Your task to perform on an android device: change keyboard looks Image 0: 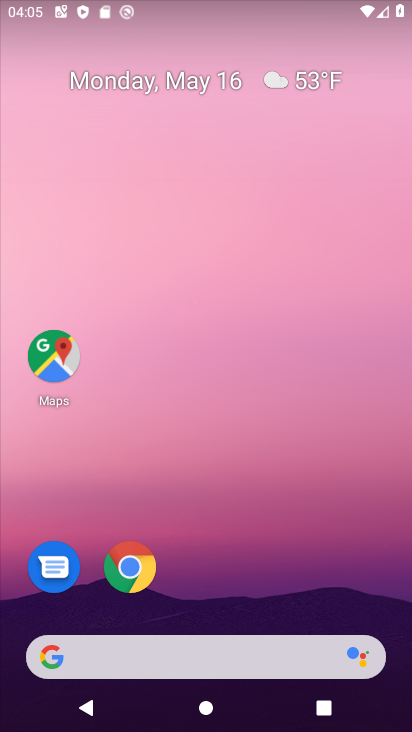
Step 0: drag from (319, 641) to (348, 4)
Your task to perform on an android device: change keyboard looks Image 1: 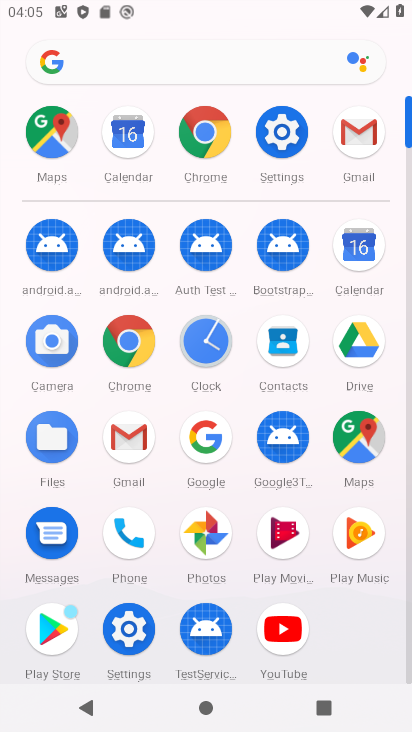
Step 1: click (269, 136)
Your task to perform on an android device: change keyboard looks Image 2: 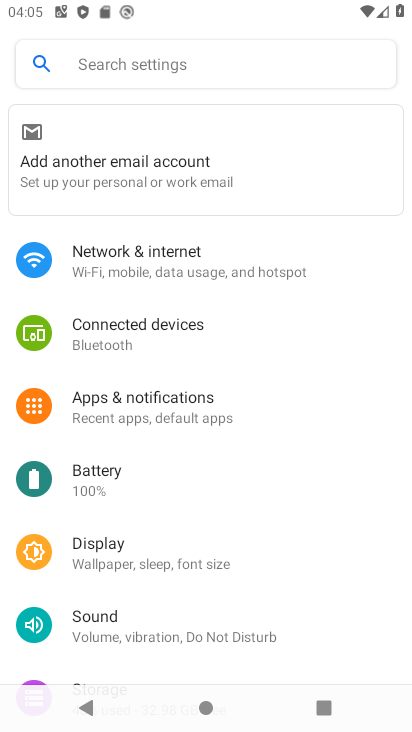
Step 2: drag from (218, 636) to (302, 49)
Your task to perform on an android device: change keyboard looks Image 3: 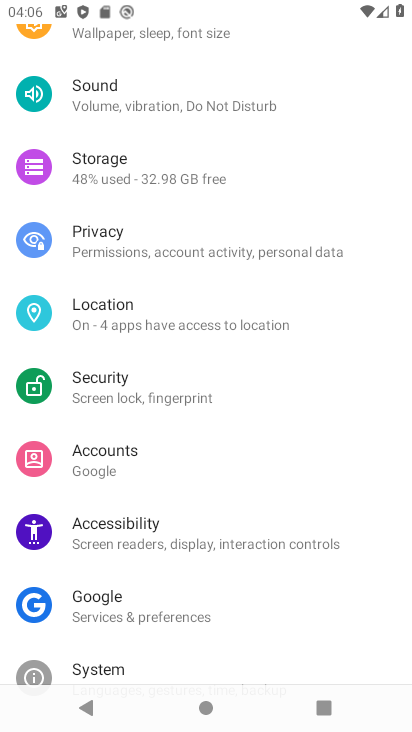
Step 3: drag from (216, 614) to (260, 302)
Your task to perform on an android device: change keyboard looks Image 4: 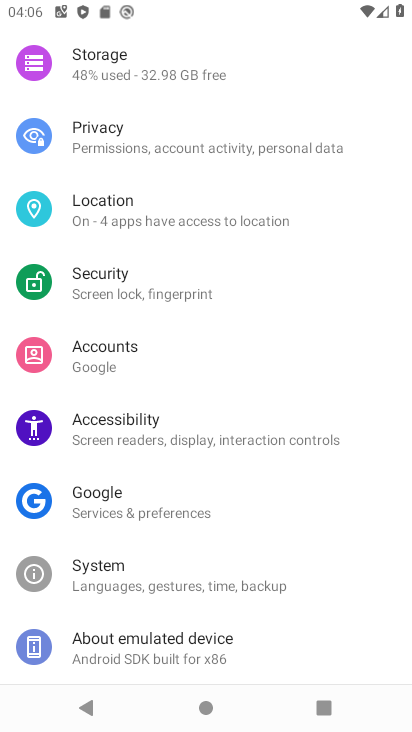
Step 4: click (161, 581)
Your task to perform on an android device: change keyboard looks Image 5: 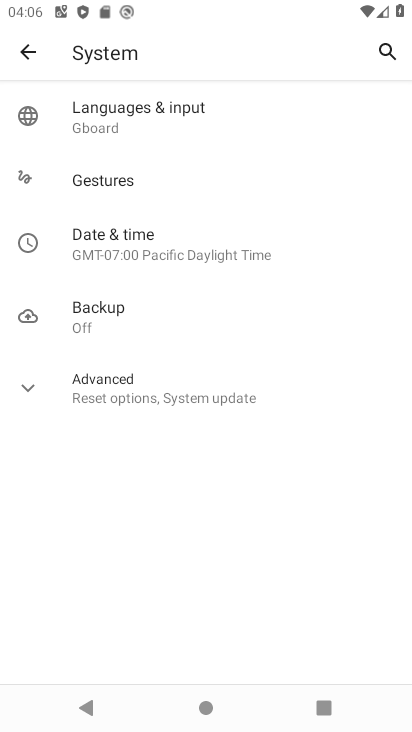
Step 5: click (162, 112)
Your task to perform on an android device: change keyboard looks Image 6: 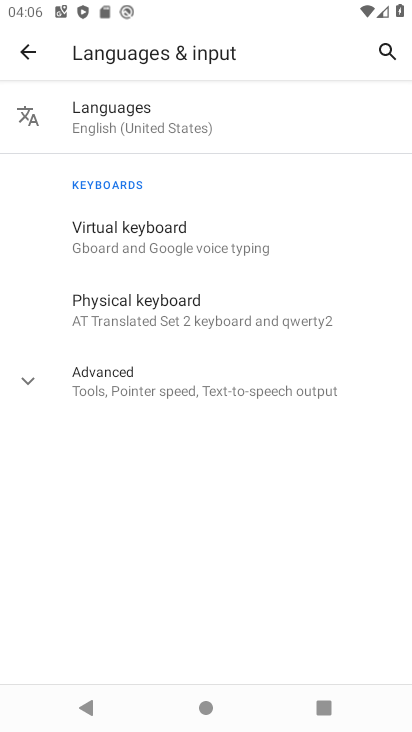
Step 6: click (146, 244)
Your task to perform on an android device: change keyboard looks Image 7: 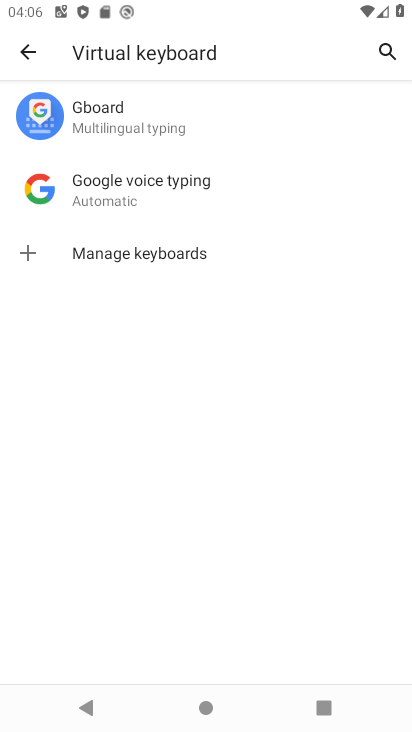
Step 7: click (145, 123)
Your task to perform on an android device: change keyboard looks Image 8: 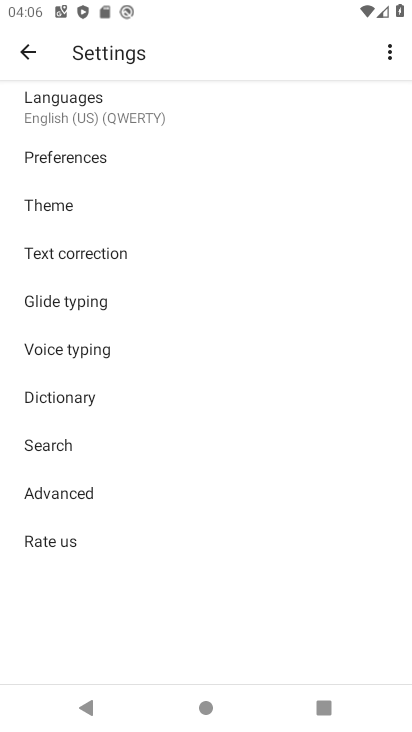
Step 8: drag from (81, 205) to (5, 196)
Your task to perform on an android device: change keyboard looks Image 9: 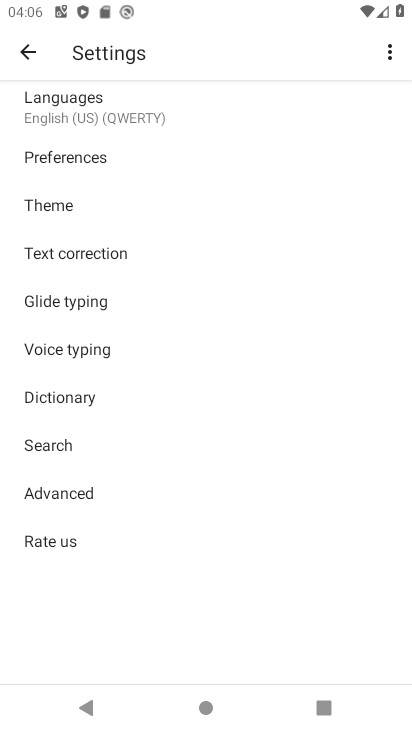
Step 9: click (75, 203)
Your task to perform on an android device: change keyboard looks Image 10: 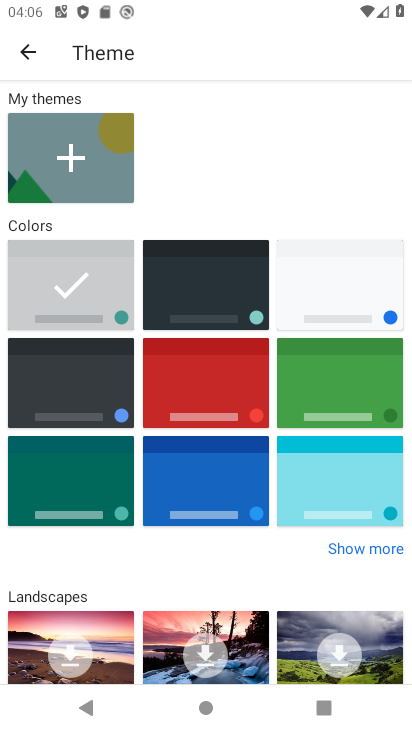
Step 10: click (300, 477)
Your task to perform on an android device: change keyboard looks Image 11: 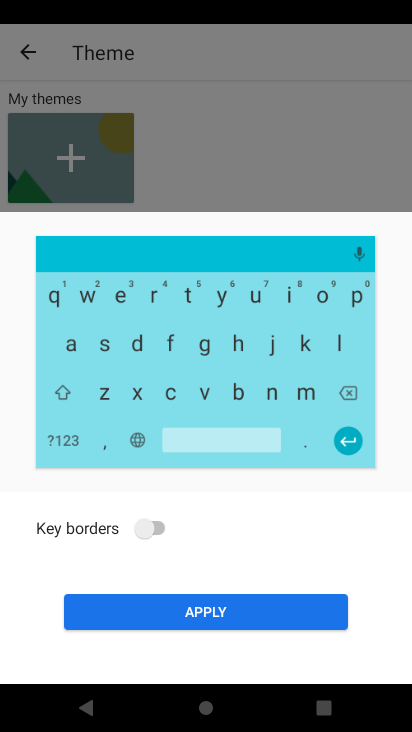
Step 11: click (212, 612)
Your task to perform on an android device: change keyboard looks Image 12: 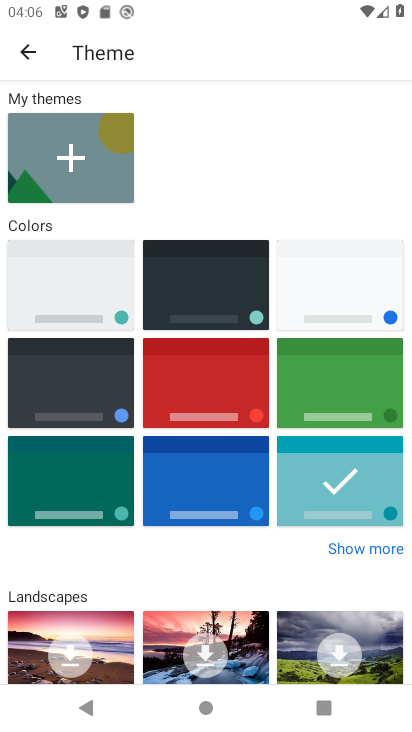
Step 12: task complete